Your task to perform on an android device: Open Reddit.com Image 0: 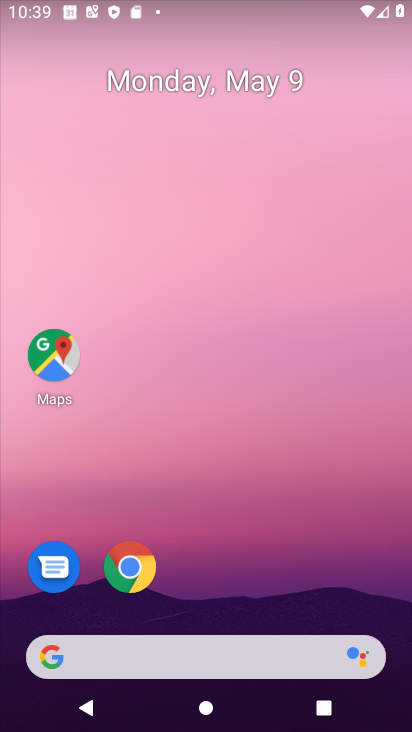
Step 0: click (121, 597)
Your task to perform on an android device: Open Reddit.com Image 1: 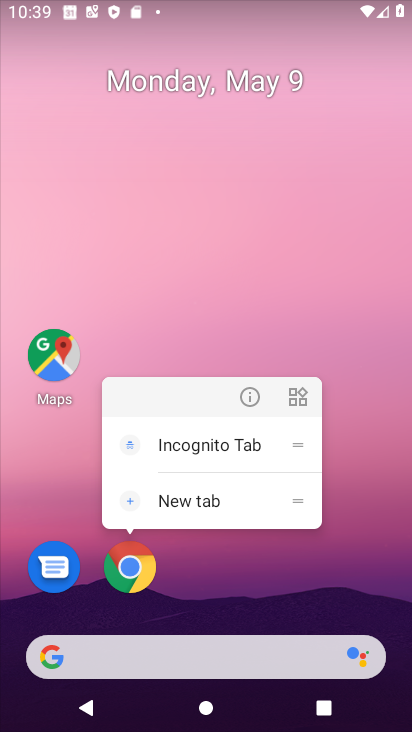
Step 1: click (129, 579)
Your task to perform on an android device: Open Reddit.com Image 2: 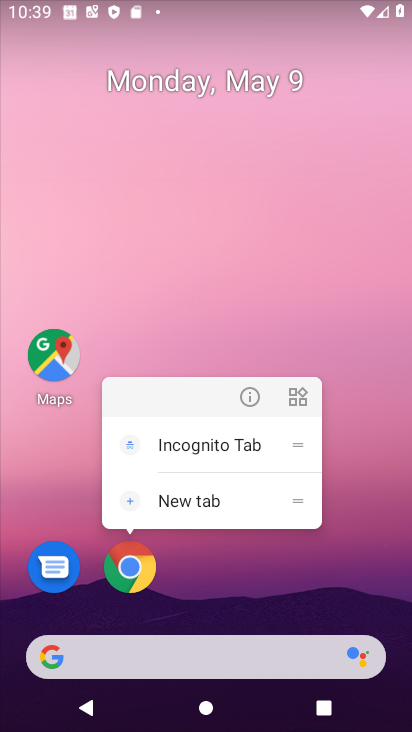
Step 2: click (129, 579)
Your task to perform on an android device: Open Reddit.com Image 3: 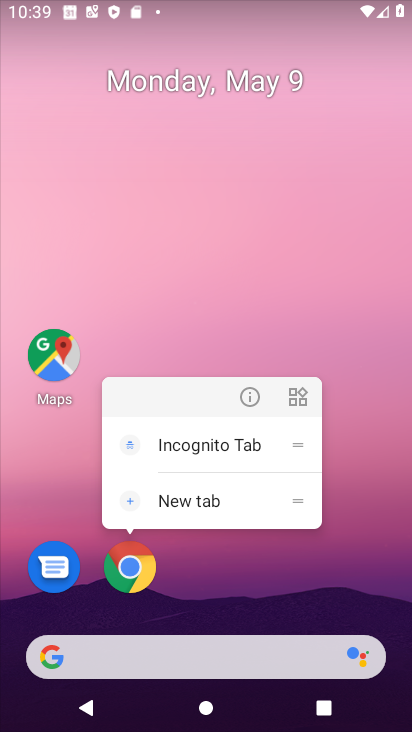
Step 3: click (148, 590)
Your task to perform on an android device: Open Reddit.com Image 4: 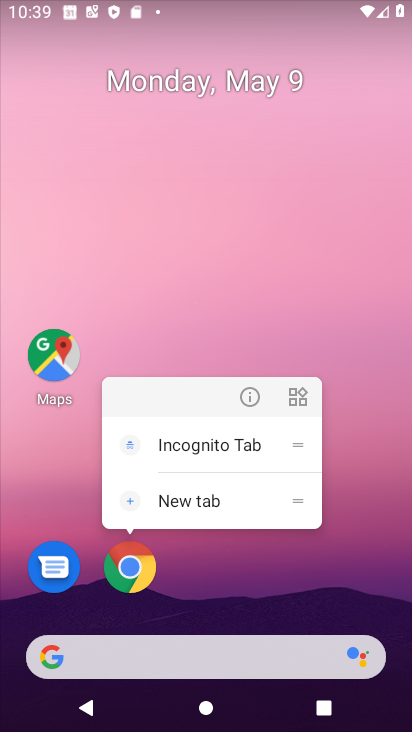
Step 4: click (148, 590)
Your task to perform on an android device: Open Reddit.com Image 5: 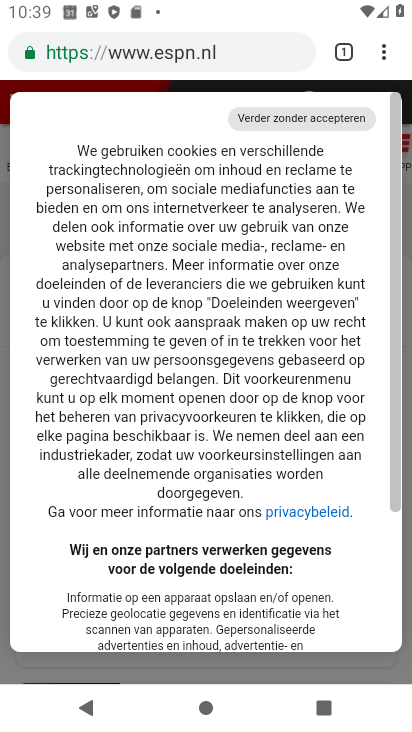
Step 5: click (209, 55)
Your task to perform on an android device: Open Reddit.com Image 6: 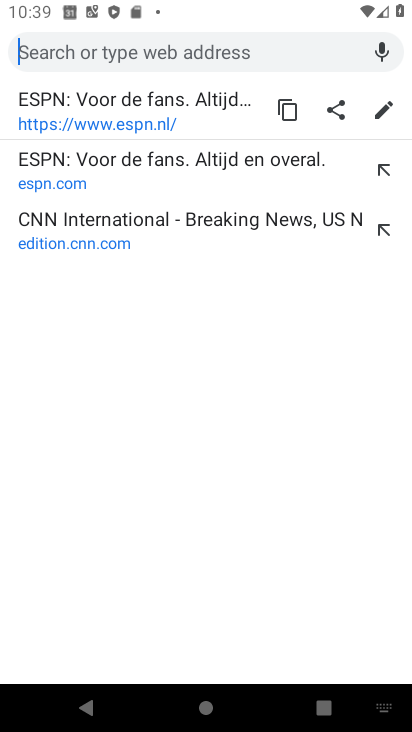
Step 6: type "reddit.com"
Your task to perform on an android device: Open Reddit.com Image 7: 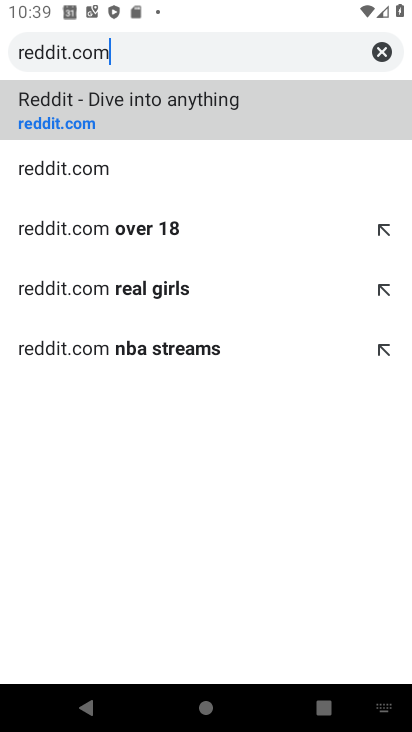
Step 7: click (123, 110)
Your task to perform on an android device: Open Reddit.com Image 8: 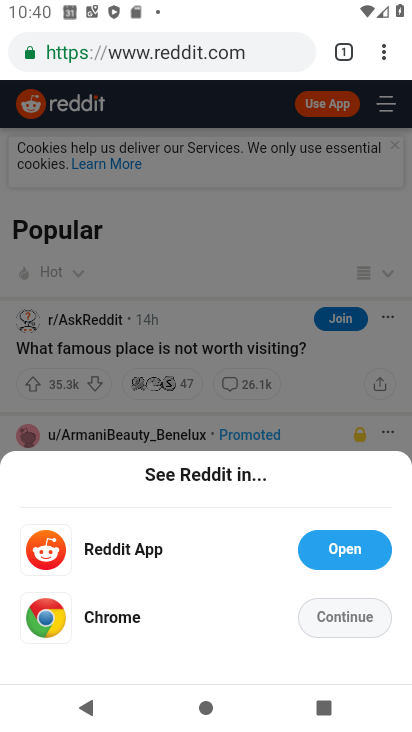
Step 8: click (326, 633)
Your task to perform on an android device: Open Reddit.com Image 9: 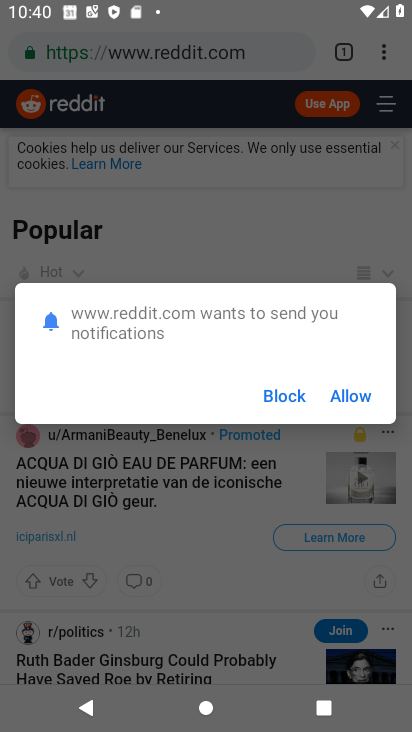
Step 9: task complete